Your task to perform on an android device: turn off data saver in the chrome app Image 0: 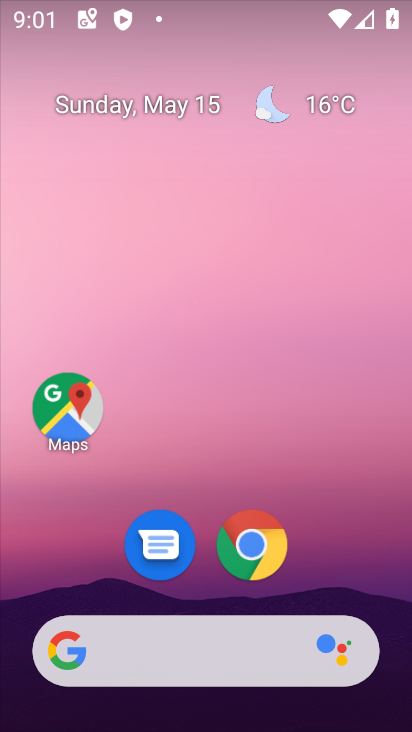
Step 0: click (254, 544)
Your task to perform on an android device: turn off data saver in the chrome app Image 1: 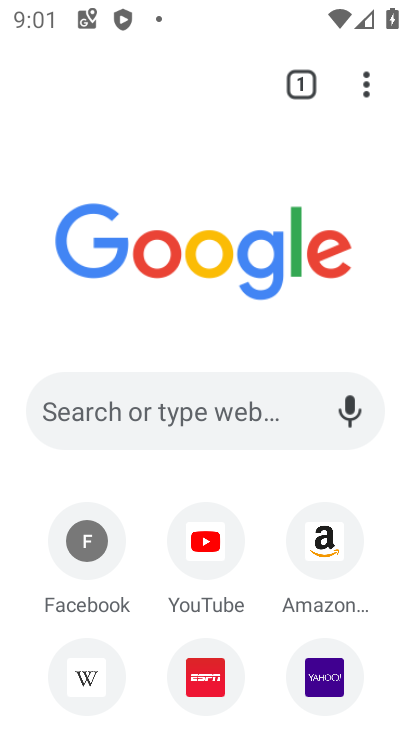
Step 1: click (368, 86)
Your task to perform on an android device: turn off data saver in the chrome app Image 2: 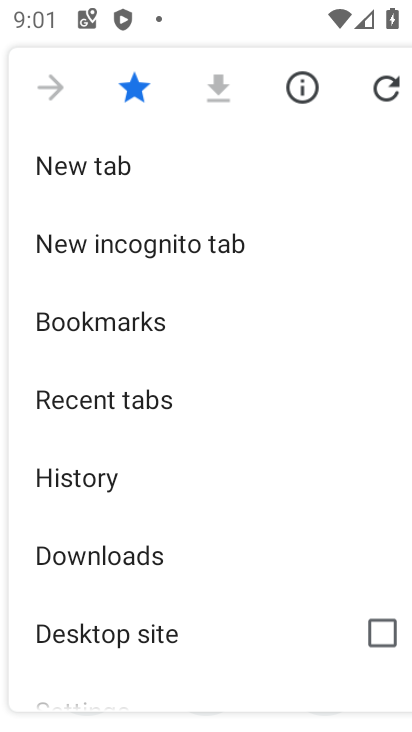
Step 2: drag from (137, 527) to (170, 434)
Your task to perform on an android device: turn off data saver in the chrome app Image 3: 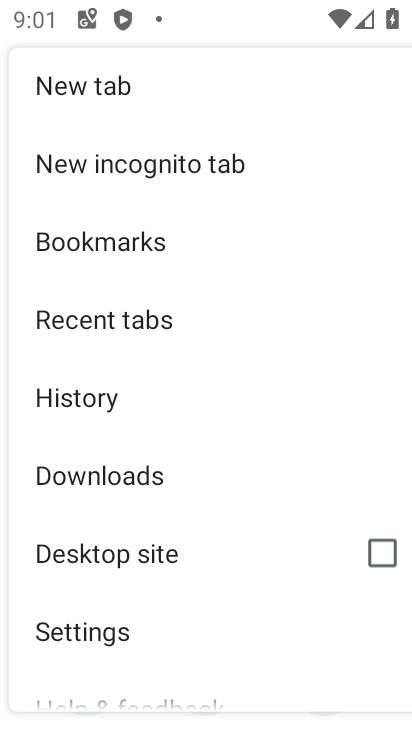
Step 3: drag from (113, 585) to (172, 457)
Your task to perform on an android device: turn off data saver in the chrome app Image 4: 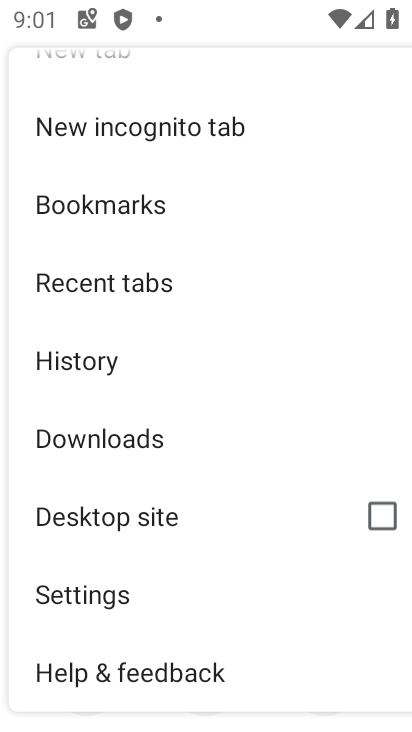
Step 4: click (89, 594)
Your task to perform on an android device: turn off data saver in the chrome app Image 5: 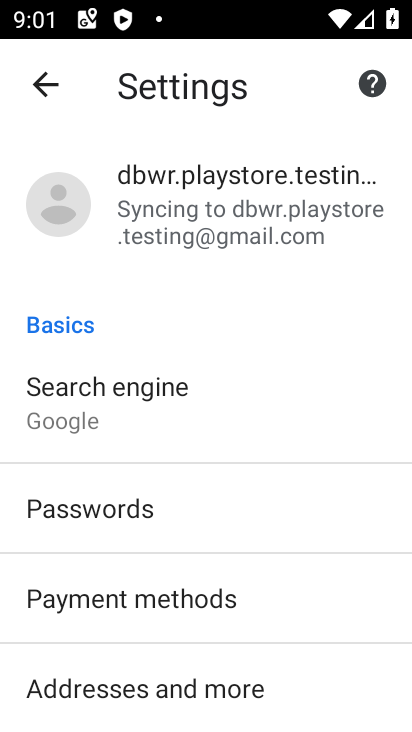
Step 5: drag from (157, 583) to (201, 479)
Your task to perform on an android device: turn off data saver in the chrome app Image 6: 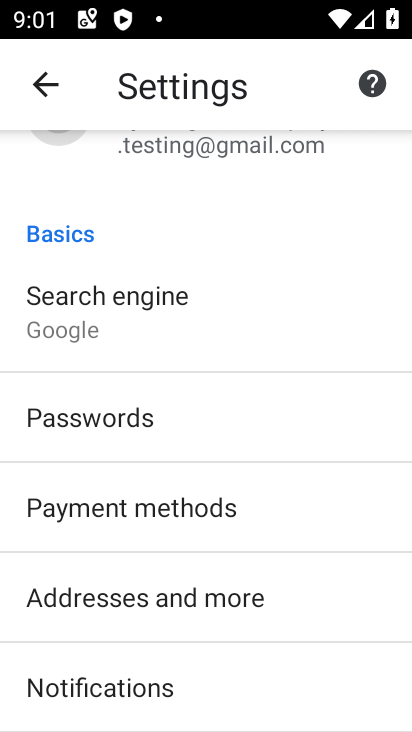
Step 6: drag from (131, 629) to (181, 557)
Your task to perform on an android device: turn off data saver in the chrome app Image 7: 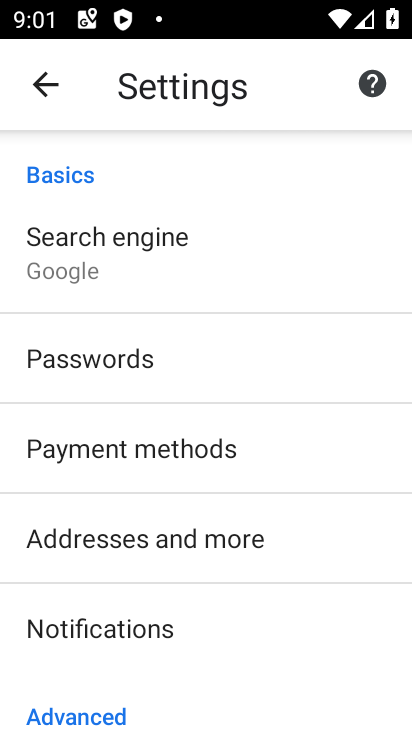
Step 7: drag from (144, 609) to (188, 535)
Your task to perform on an android device: turn off data saver in the chrome app Image 8: 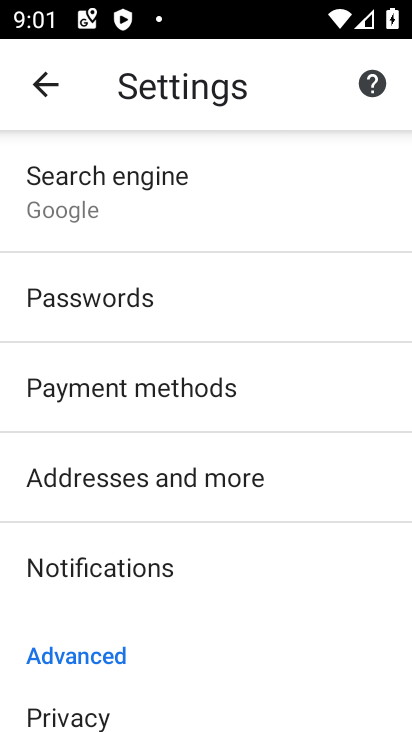
Step 8: drag from (139, 635) to (200, 529)
Your task to perform on an android device: turn off data saver in the chrome app Image 9: 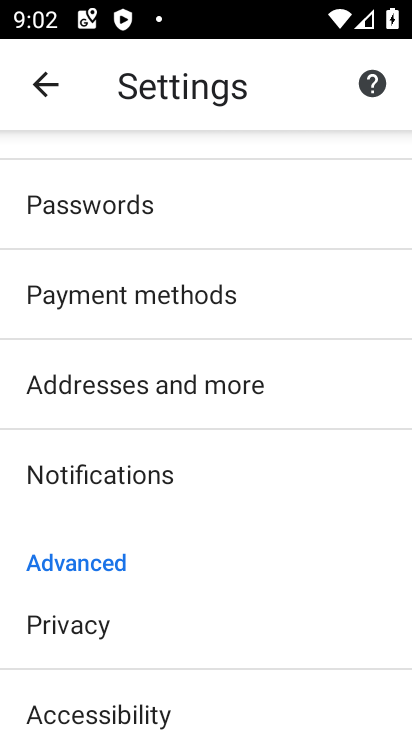
Step 9: drag from (127, 625) to (189, 548)
Your task to perform on an android device: turn off data saver in the chrome app Image 10: 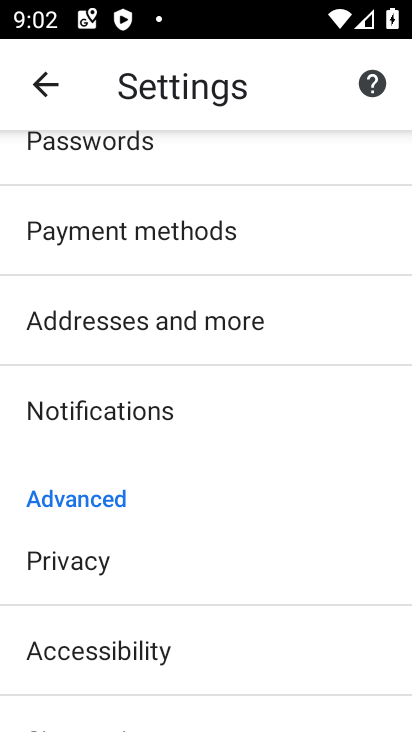
Step 10: drag from (177, 576) to (212, 498)
Your task to perform on an android device: turn off data saver in the chrome app Image 11: 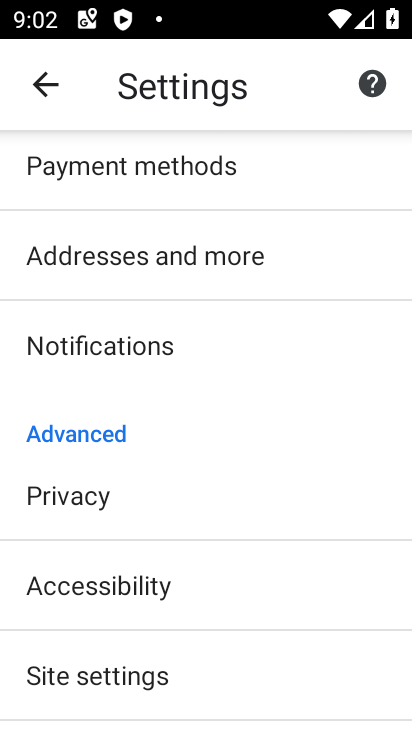
Step 11: drag from (191, 609) to (236, 534)
Your task to perform on an android device: turn off data saver in the chrome app Image 12: 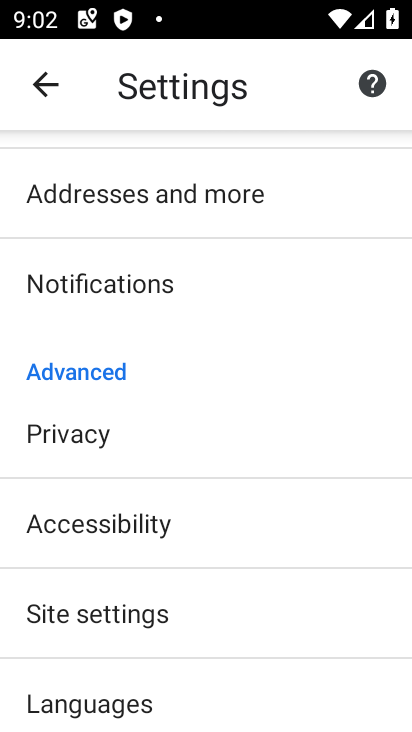
Step 12: drag from (201, 619) to (256, 523)
Your task to perform on an android device: turn off data saver in the chrome app Image 13: 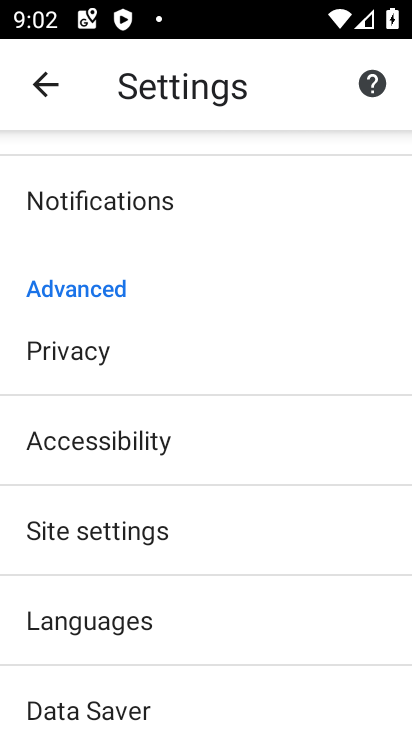
Step 13: drag from (182, 610) to (247, 531)
Your task to perform on an android device: turn off data saver in the chrome app Image 14: 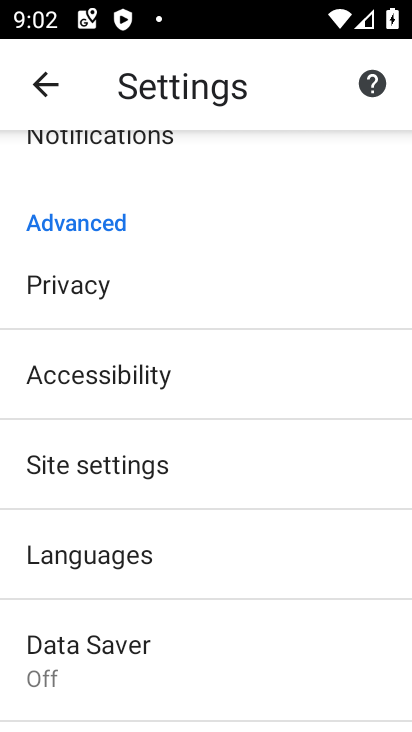
Step 14: click (149, 644)
Your task to perform on an android device: turn off data saver in the chrome app Image 15: 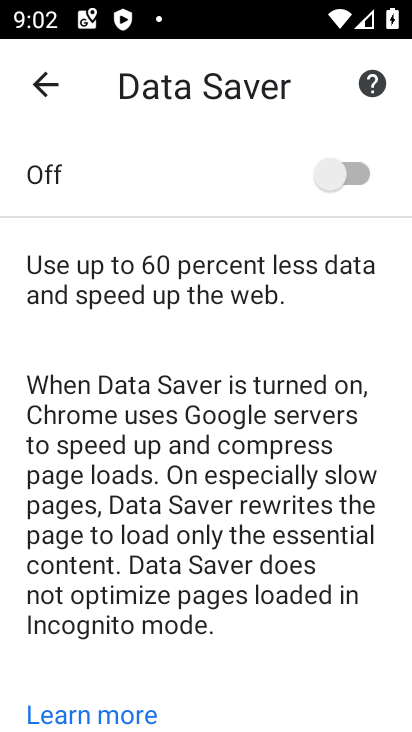
Step 15: task complete